Your task to perform on an android device: Open calendar and show me the first week of next month Image 0: 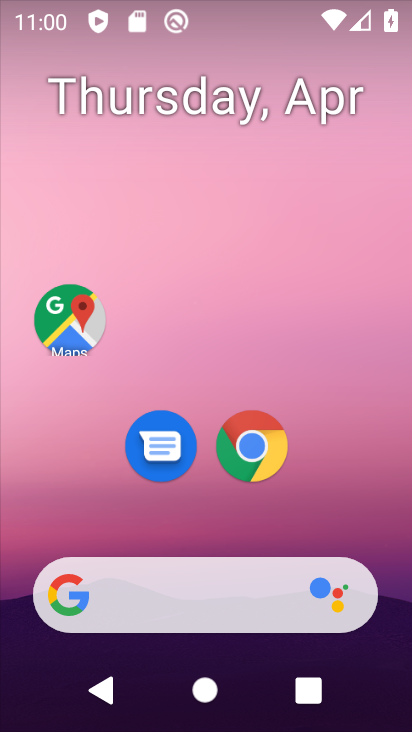
Step 0: drag from (215, 510) to (213, 136)
Your task to perform on an android device: Open calendar and show me the first week of next month Image 1: 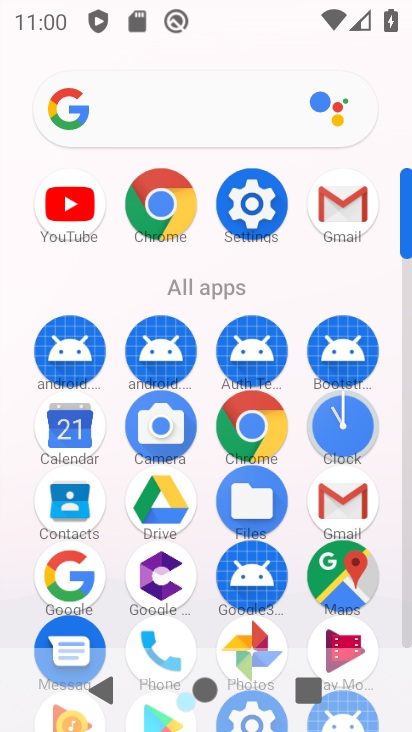
Step 1: drag from (201, 611) to (212, 280)
Your task to perform on an android device: Open calendar and show me the first week of next month Image 2: 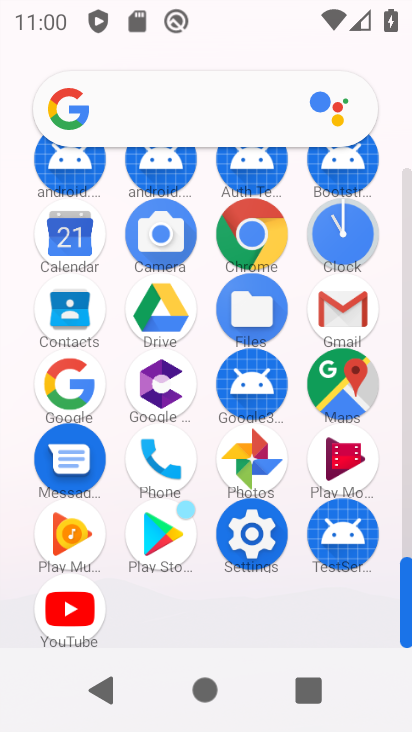
Step 2: click (70, 238)
Your task to perform on an android device: Open calendar and show me the first week of next month Image 3: 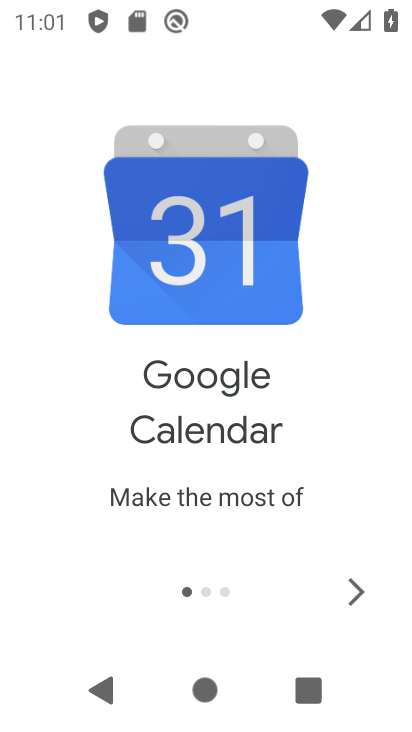
Step 3: click (361, 580)
Your task to perform on an android device: Open calendar and show me the first week of next month Image 4: 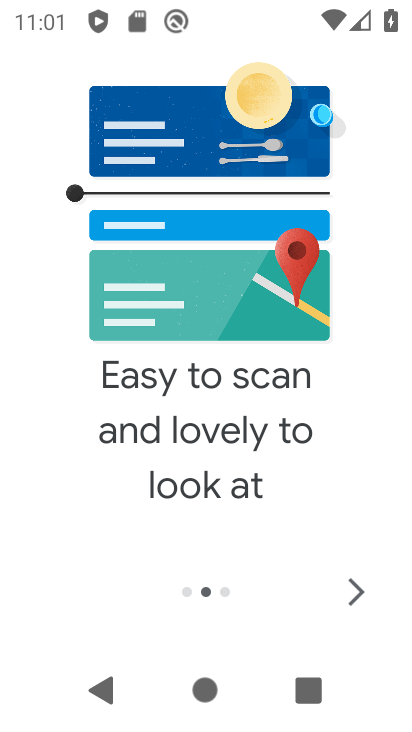
Step 4: click (346, 586)
Your task to perform on an android device: Open calendar and show me the first week of next month Image 5: 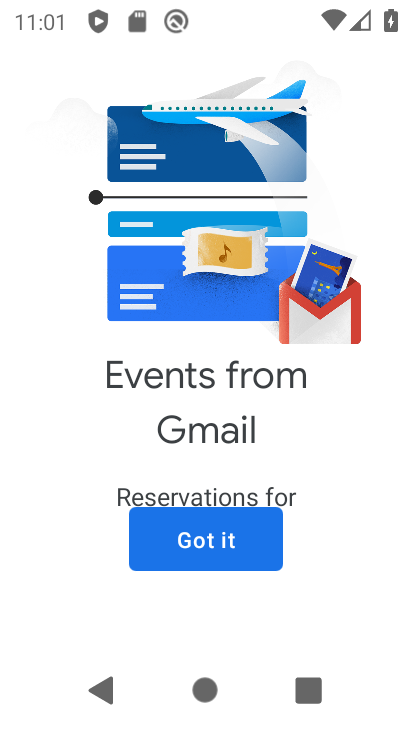
Step 5: click (202, 542)
Your task to perform on an android device: Open calendar and show me the first week of next month Image 6: 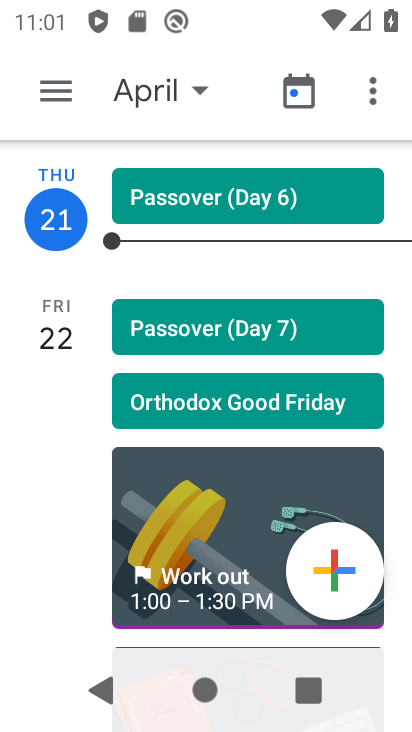
Step 6: click (155, 99)
Your task to perform on an android device: Open calendar and show me the first week of next month Image 7: 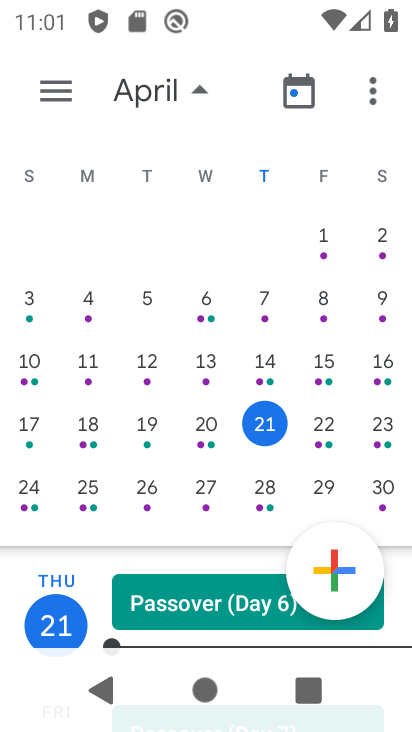
Step 7: drag from (354, 408) to (5, 404)
Your task to perform on an android device: Open calendar and show me the first week of next month Image 8: 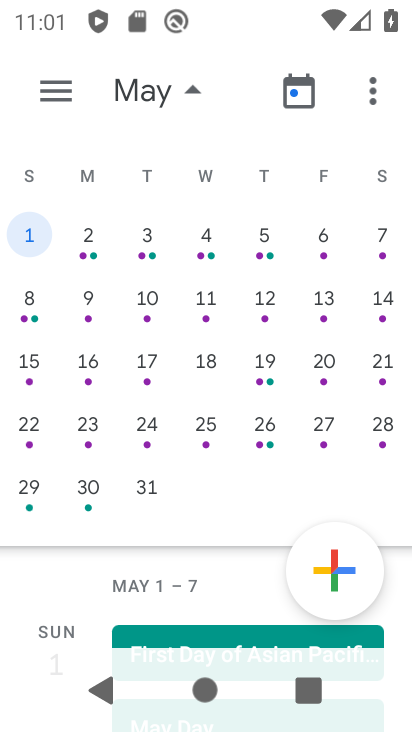
Step 8: click (268, 231)
Your task to perform on an android device: Open calendar and show me the first week of next month Image 9: 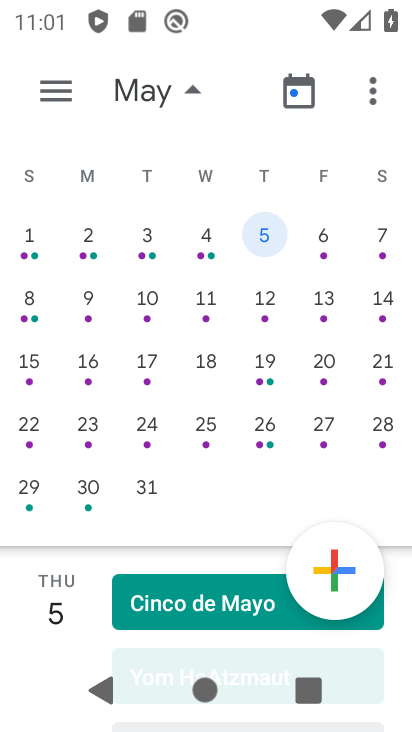
Step 9: task complete